Your task to perform on an android device: create a new album in the google photos Image 0: 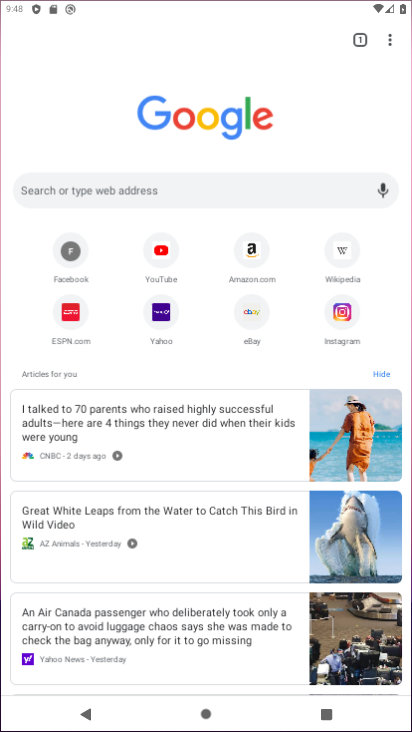
Step 0: click (79, 677)
Your task to perform on an android device: create a new album in the google photos Image 1: 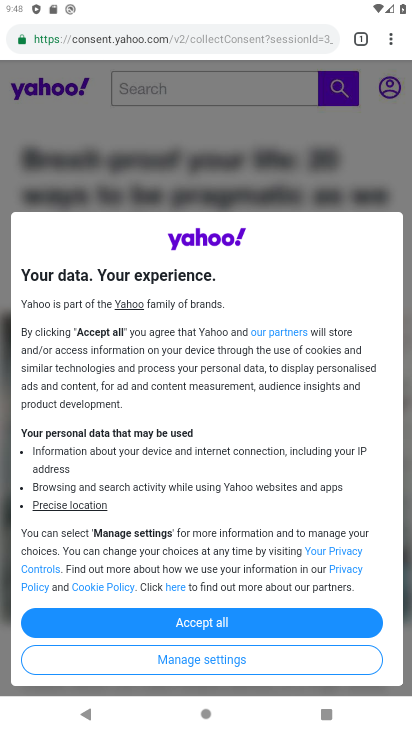
Step 1: click (99, 28)
Your task to perform on an android device: create a new album in the google photos Image 2: 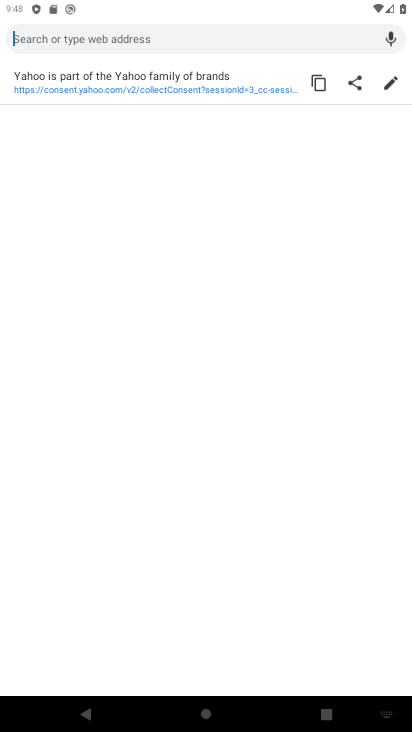
Step 2: task complete